Your task to perform on an android device: Show me popular games on the Play Store Image 0: 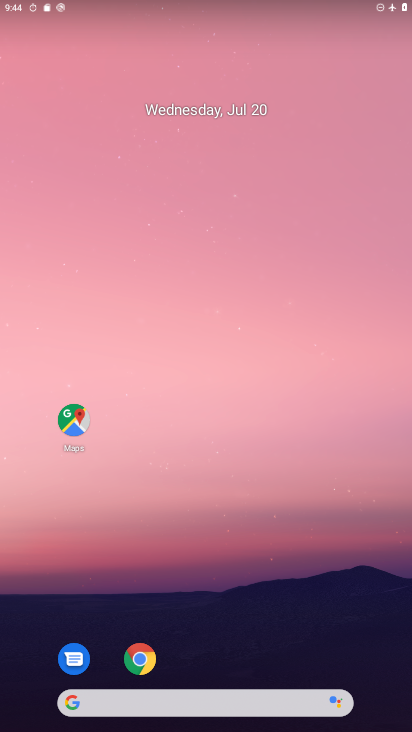
Step 0: drag from (307, 639) to (262, 18)
Your task to perform on an android device: Show me popular games on the Play Store Image 1: 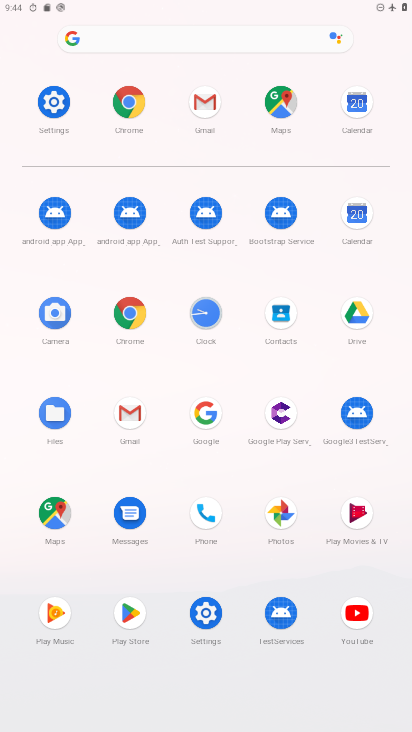
Step 1: click (144, 622)
Your task to perform on an android device: Show me popular games on the Play Store Image 2: 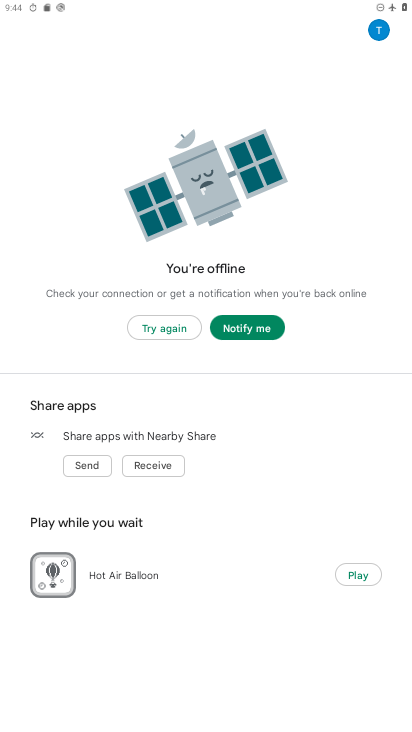
Step 2: task complete